Your task to perform on an android device: manage bookmarks in the chrome app Image 0: 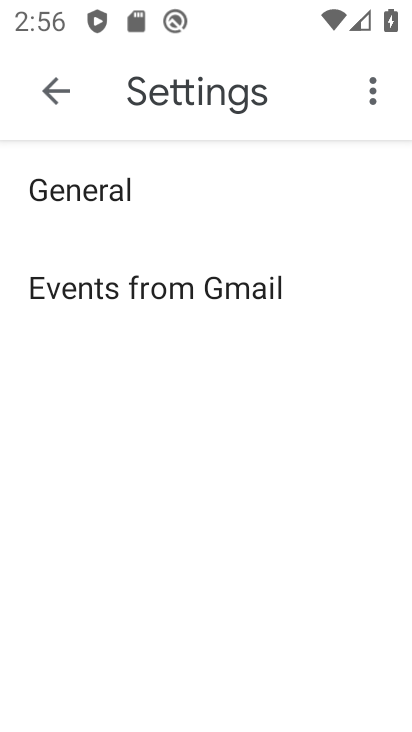
Step 0: press home button
Your task to perform on an android device: manage bookmarks in the chrome app Image 1: 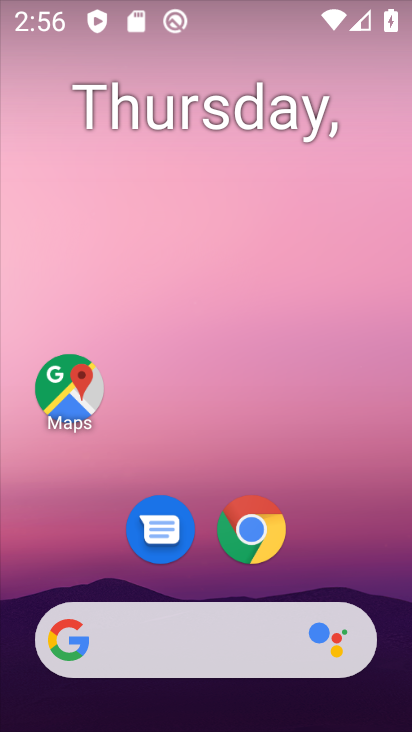
Step 1: click (254, 525)
Your task to perform on an android device: manage bookmarks in the chrome app Image 2: 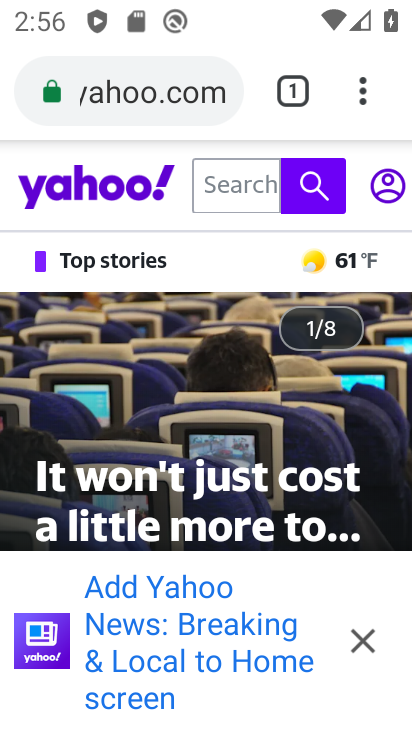
Step 2: click (358, 97)
Your task to perform on an android device: manage bookmarks in the chrome app Image 3: 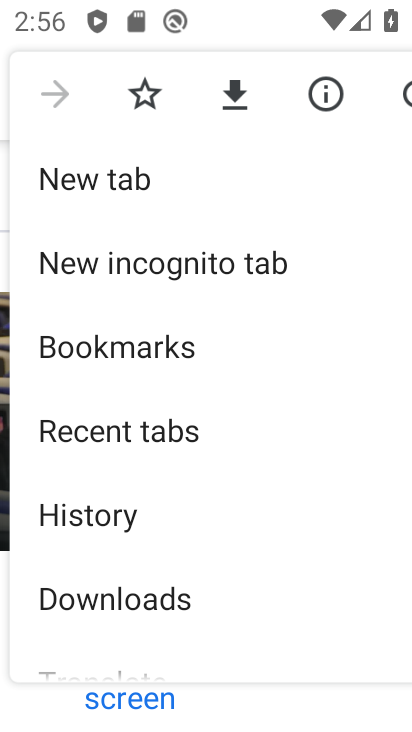
Step 3: click (167, 342)
Your task to perform on an android device: manage bookmarks in the chrome app Image 4: 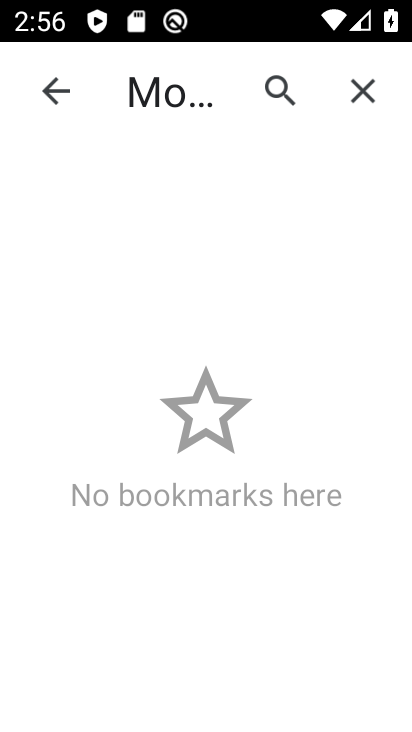
Step 4: task complete